Your task to perform on an android device: install app "Reddit" Image 0: 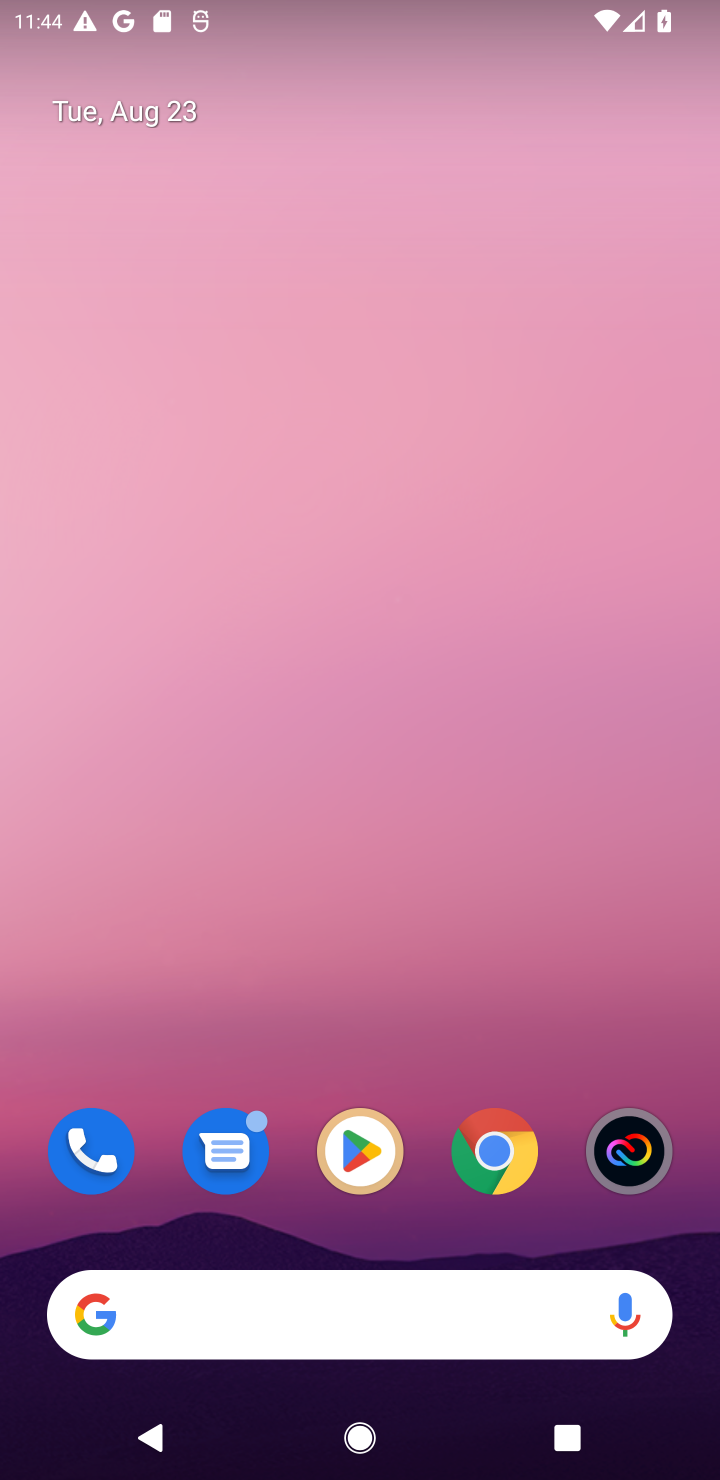
Step 0: click (351, 1145)
Your task to perform on an android device: install app "Reddit" Image 1: 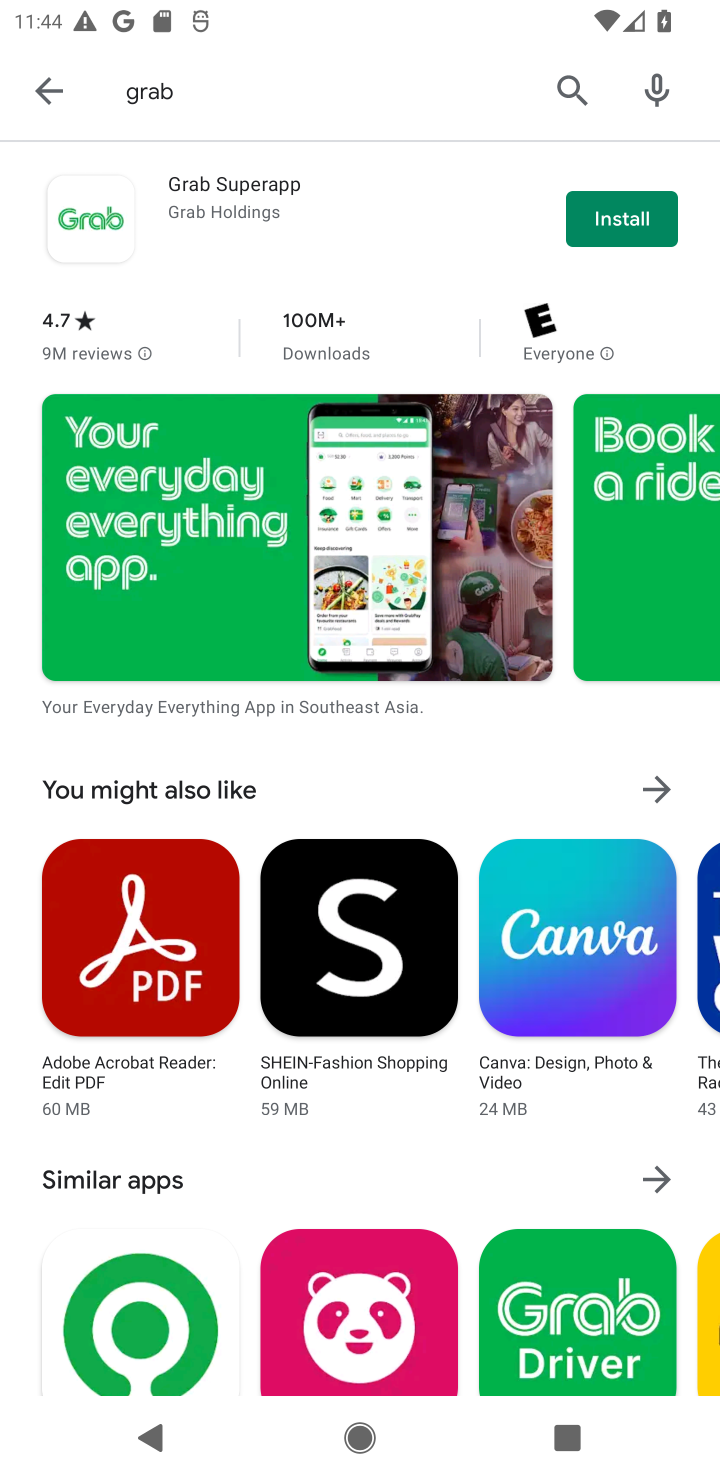
Step 1: click (549, 82)
Your task to perform on an android device: install app "Reddit" Image 2: 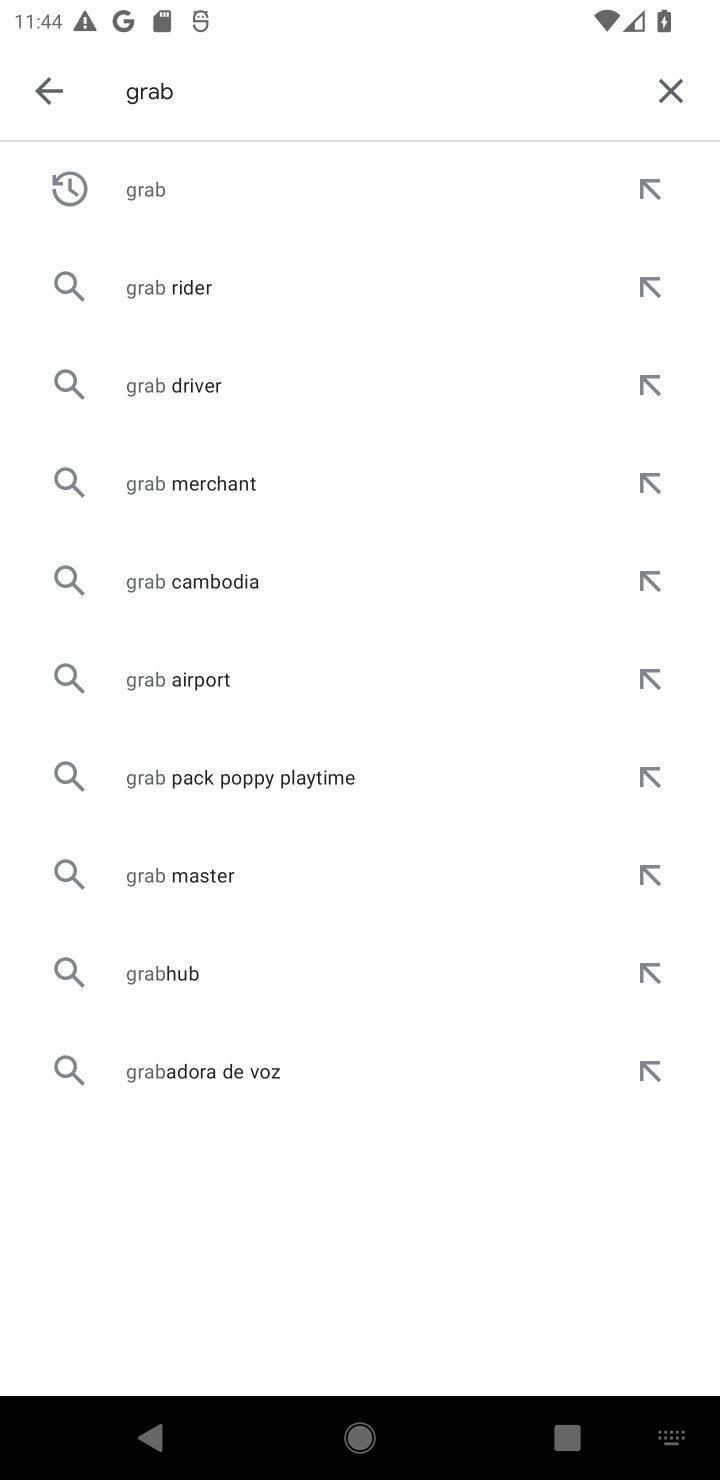
Step 2: click (648, 72)
Your task to perform on an android device: install app "Reddit" Image 3: 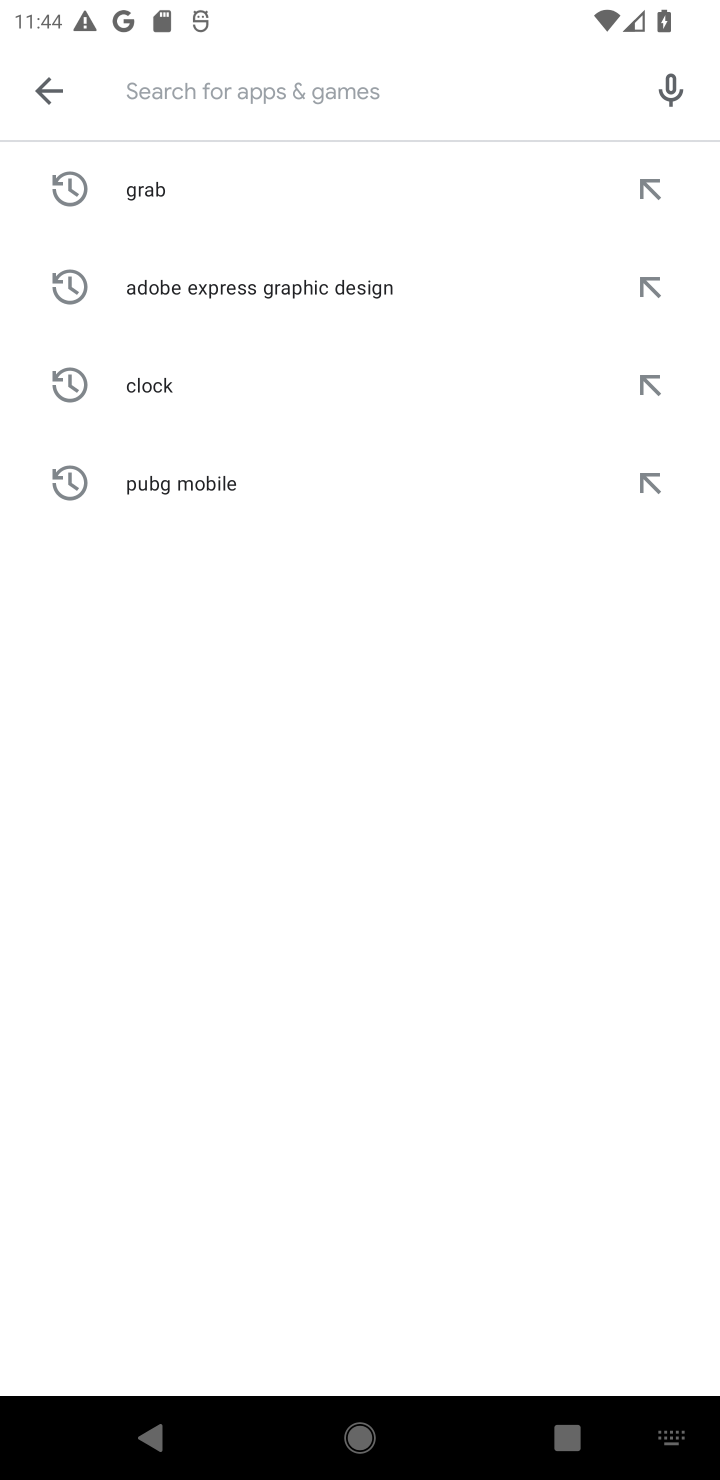
Step 3: type "Reddit"
Your task to perform on an android device: install app "Reddit" Image 4: 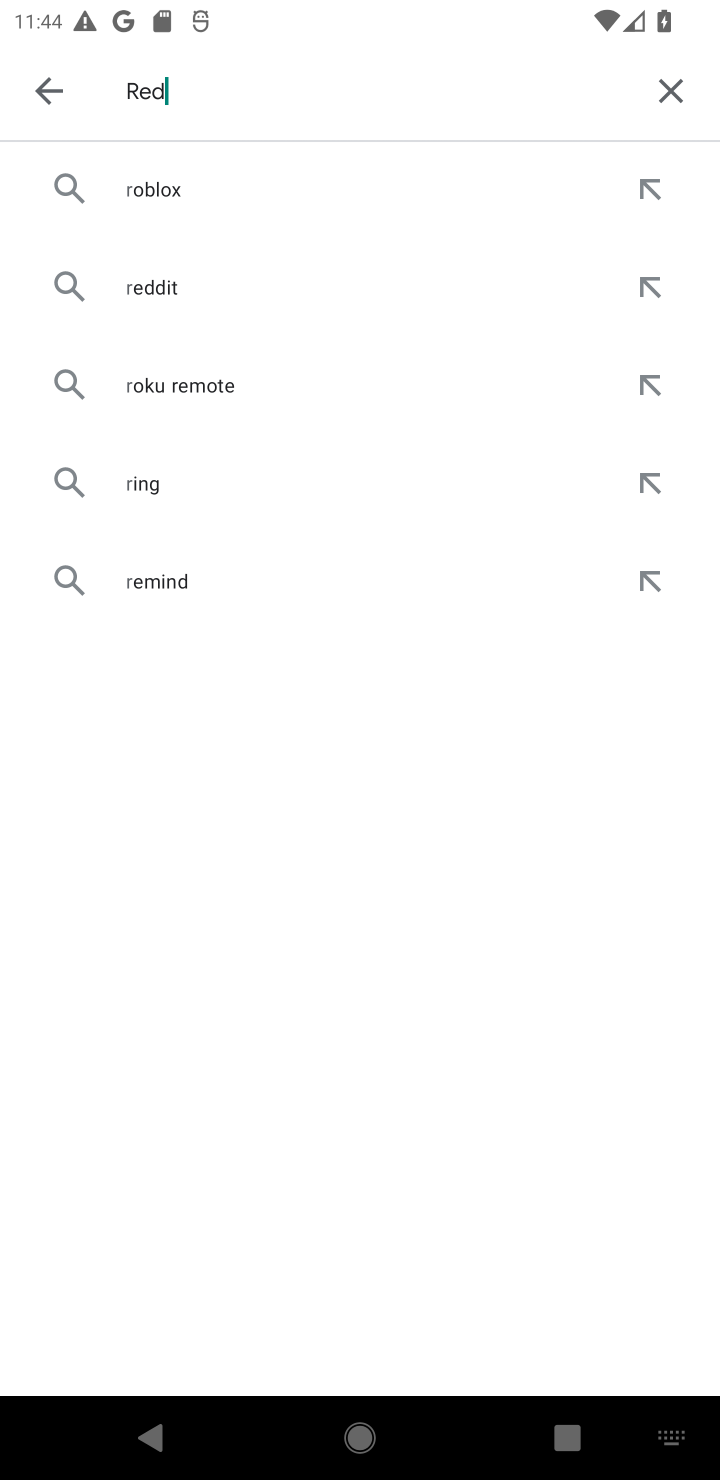
Step 4: type ""
Your task to perform on an android device: install app "Reddit" Image 5: 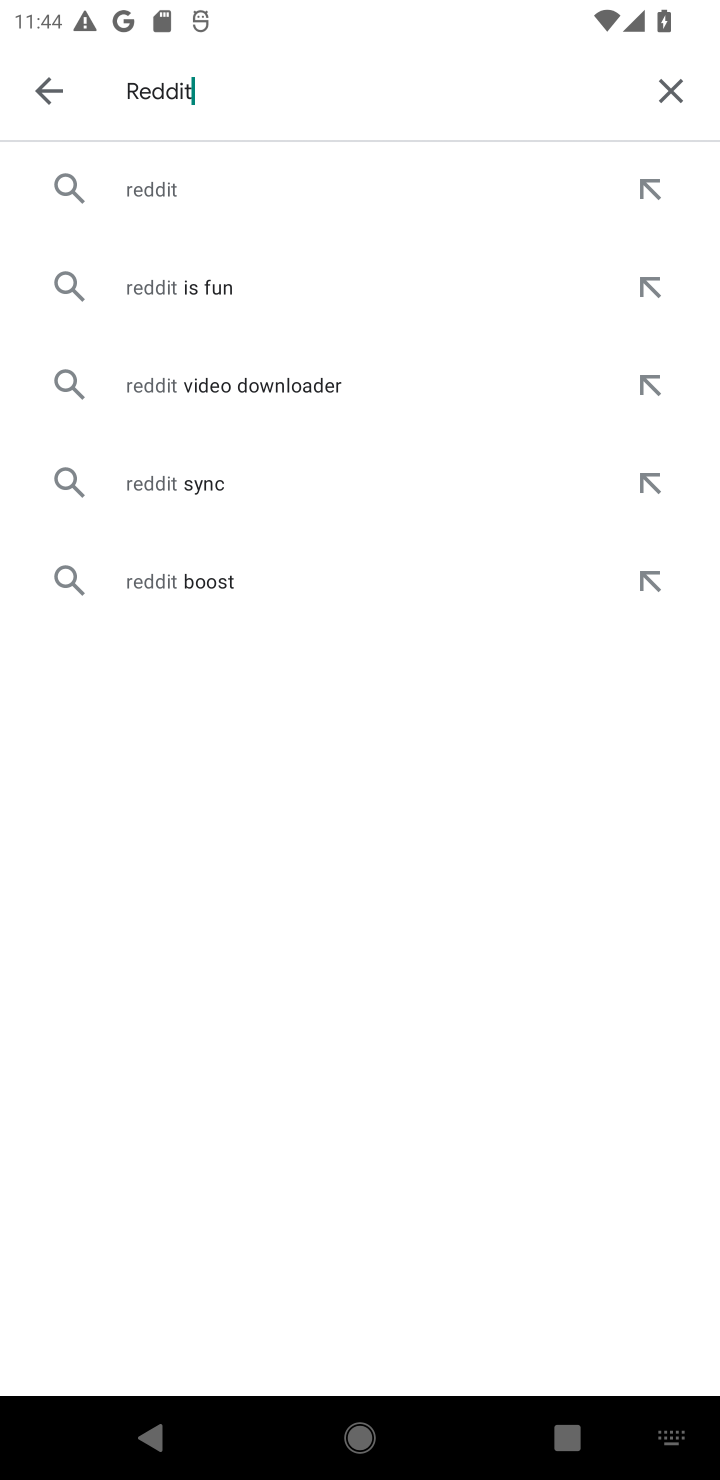
Step 5: click (165, 182)
Your task to perform on an android device: install app "Reddit" Image 6: 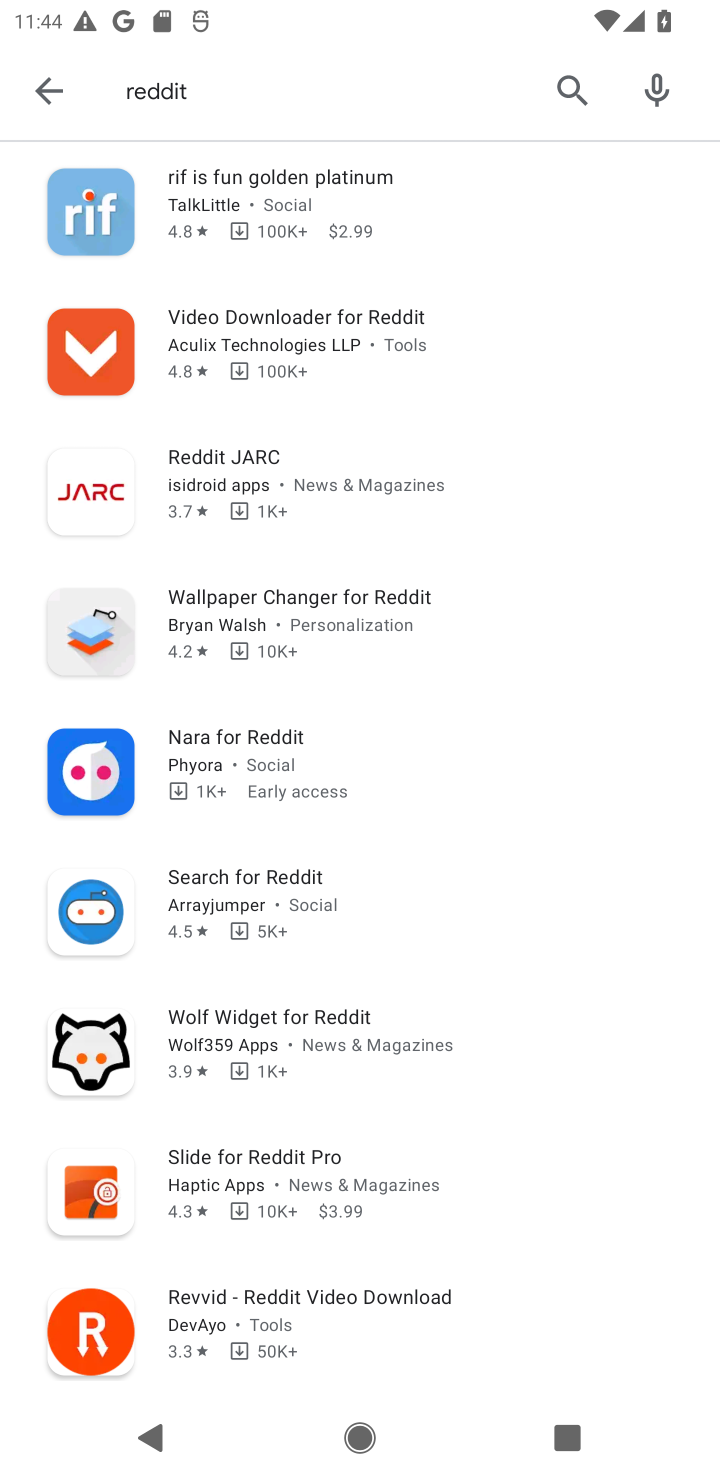
Step 6: task complete